Your task to perform on an android device: Open Google Chrome Image 0: 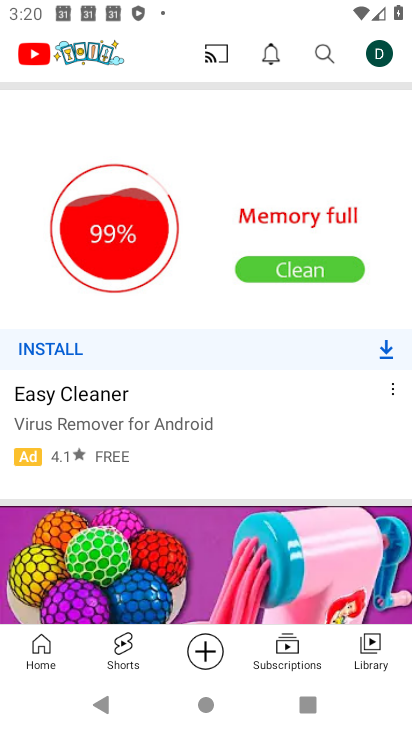
Step 0: drag from (235, 576) to (282, 228)
Your task to perform on an android device: Open Google Chrome Image 1: 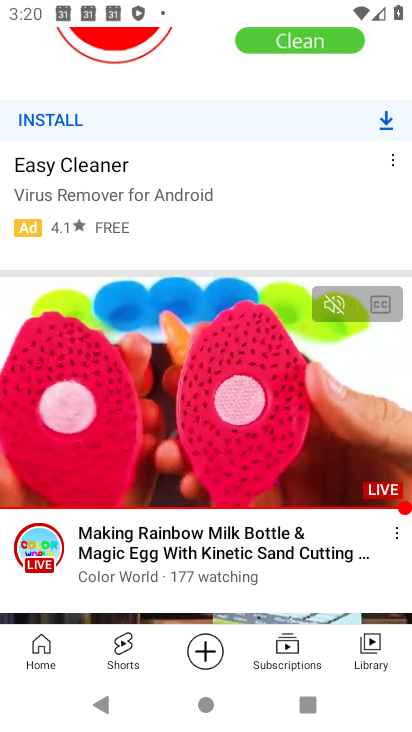
Step 1: drag from (222, 510) to (254, 3)
Your task to perform on an android device: Open Google Chrome Image 2: 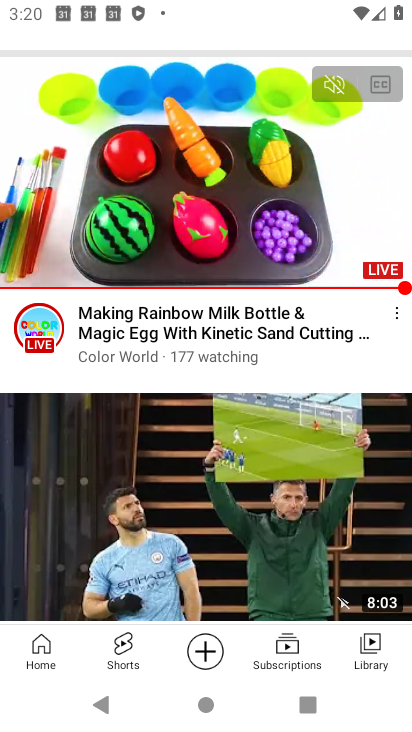
Step 2: drag from (255, 503) to (293, 311)
Your task to perform on an android device: Open Google Chrome Image 3: 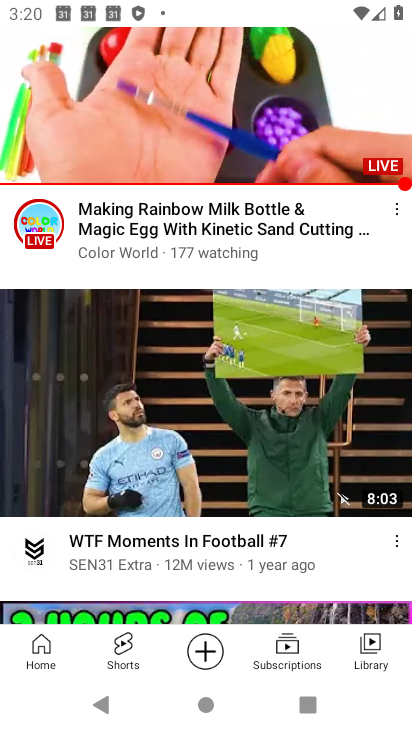
Step 3: press home button
Your task to perform on an android device: Open Google Chrome Image 4: 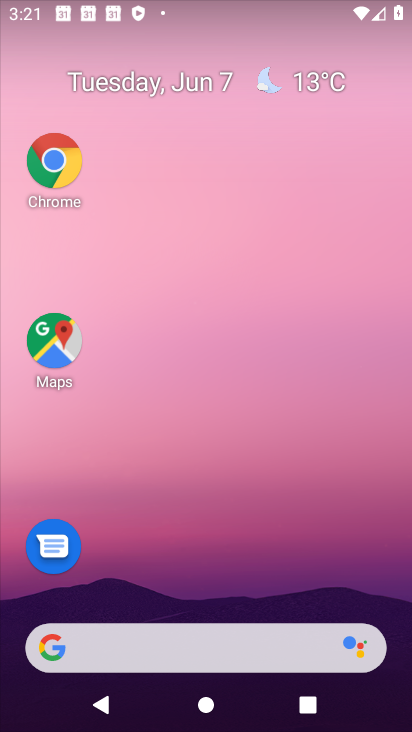
Step 4: click (72, 165)
Your task to perform on an android device: Open Google Chrome Image 5: 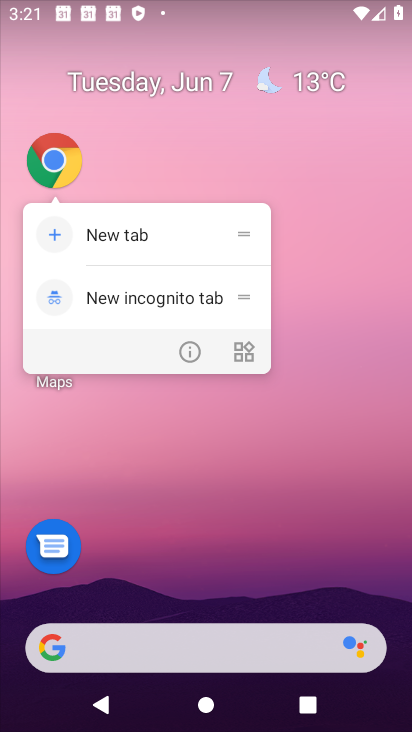
Step 5: click (195, 353)
Your task to perform on an android device: Open Google Chrome Image 6: 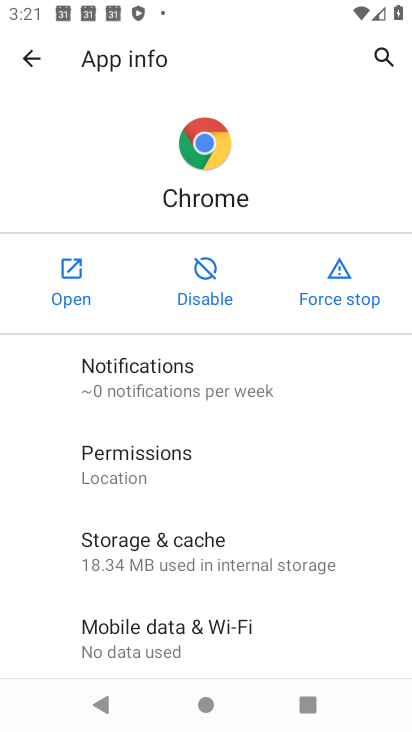
Step 6: click (73, 276)
Your task to perform on an android device: Open Google Chrome Image 7: 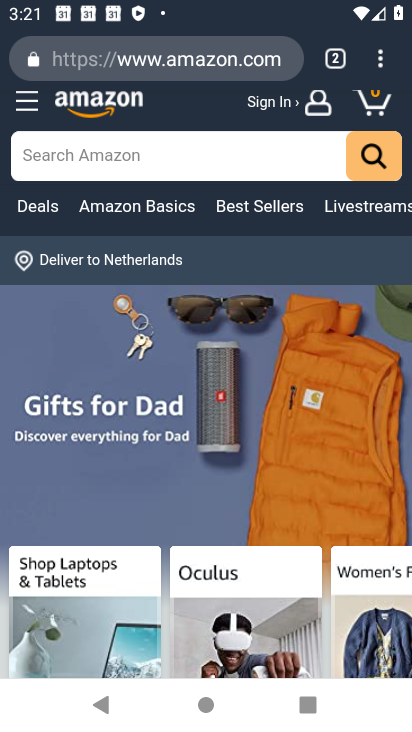
Step 7: task complete